Your task to perform on an android device: Open privacy settings Image 0: 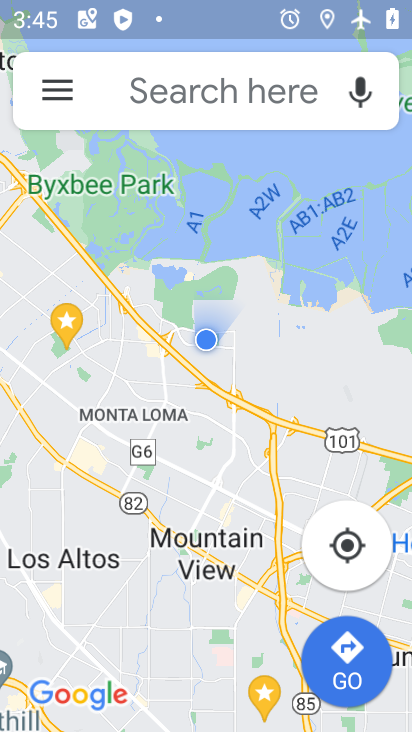
Step 0: press home button
Your task to perform on an android device: Open privacy settings Image 1: 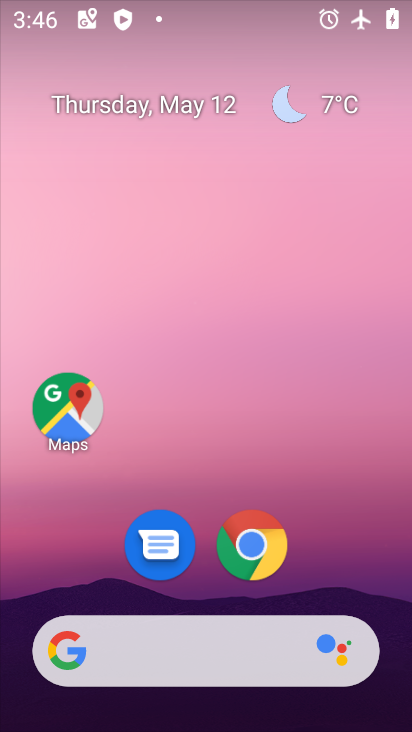
Step 1: drag from (359, 597) to (320, 106)
Your task to perform on an android device: Open privacy settings Image 2: 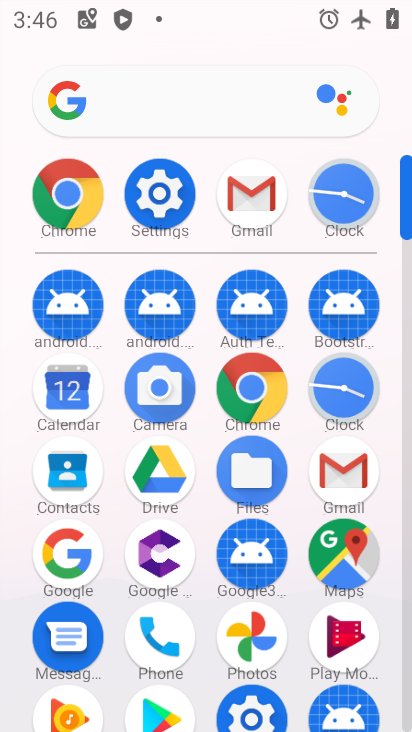
Step 2: click (250, 712)
Your task to perform on an android device: Open privacy settings Image 3: 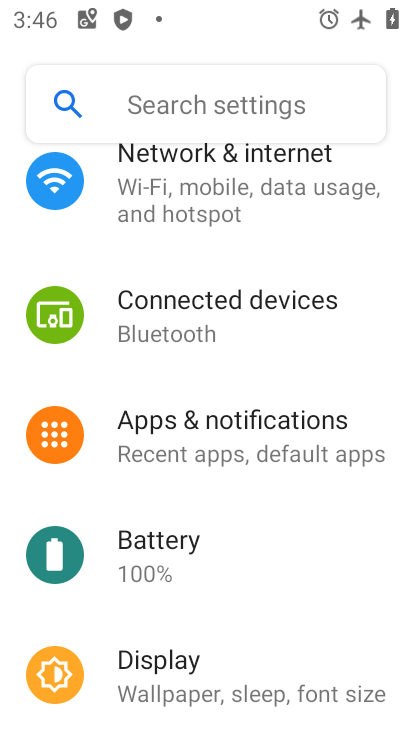
Step 3: drag from (357, 646) to (343, 218)
Your task to perform on an android device: Open privacy settings Image 4: 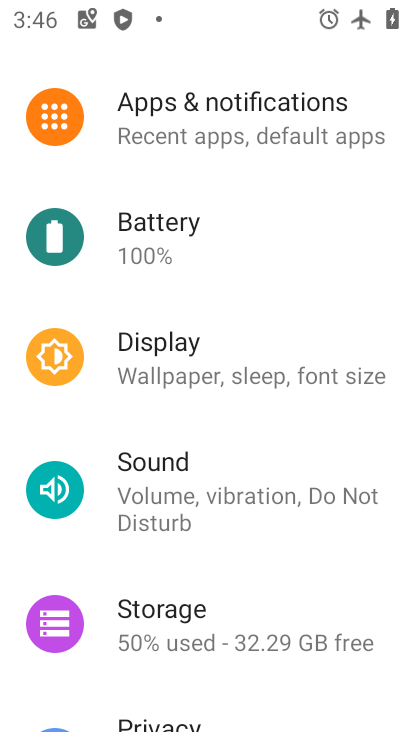
Step 4: drag from (308, 621) to (264, 81)
Your task to perform on an android device: Open privacy settings Image 5: 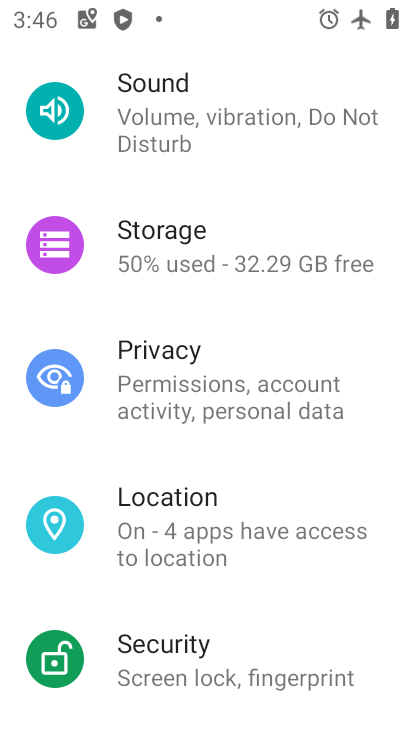
Step 5: click (157, 372)
Your task to perform on an android device: Open privacy settings Image 6: 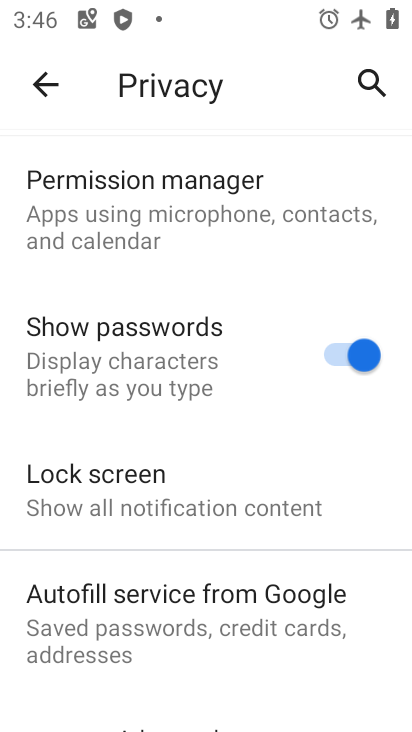
Step 6: drag from (181, 619) to (247, 193)
Your task to perform on an android device: Open privacy settings Image 7: 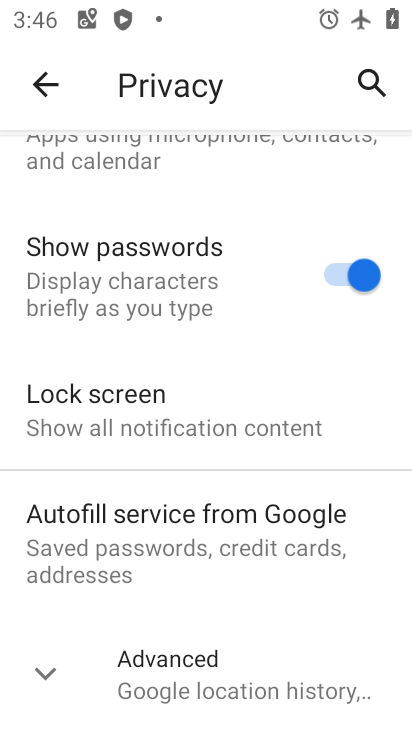
Step 7: click (45, 678)
Your task to perform on an android device: Open privacy settings Image 8: 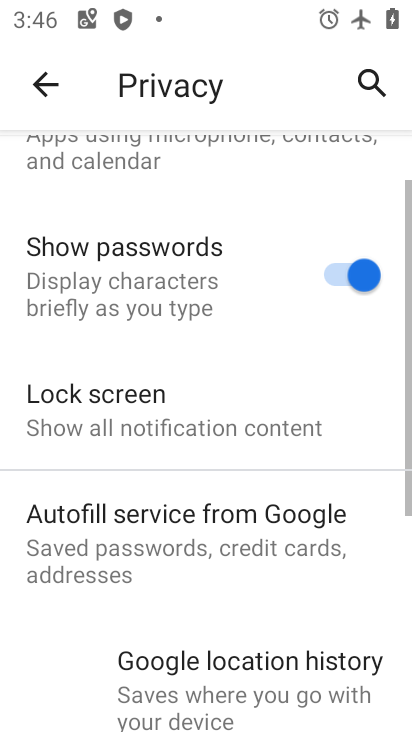
Step 8: task complete